Your task to perform on an android device: turn off airplane mode Image 0: 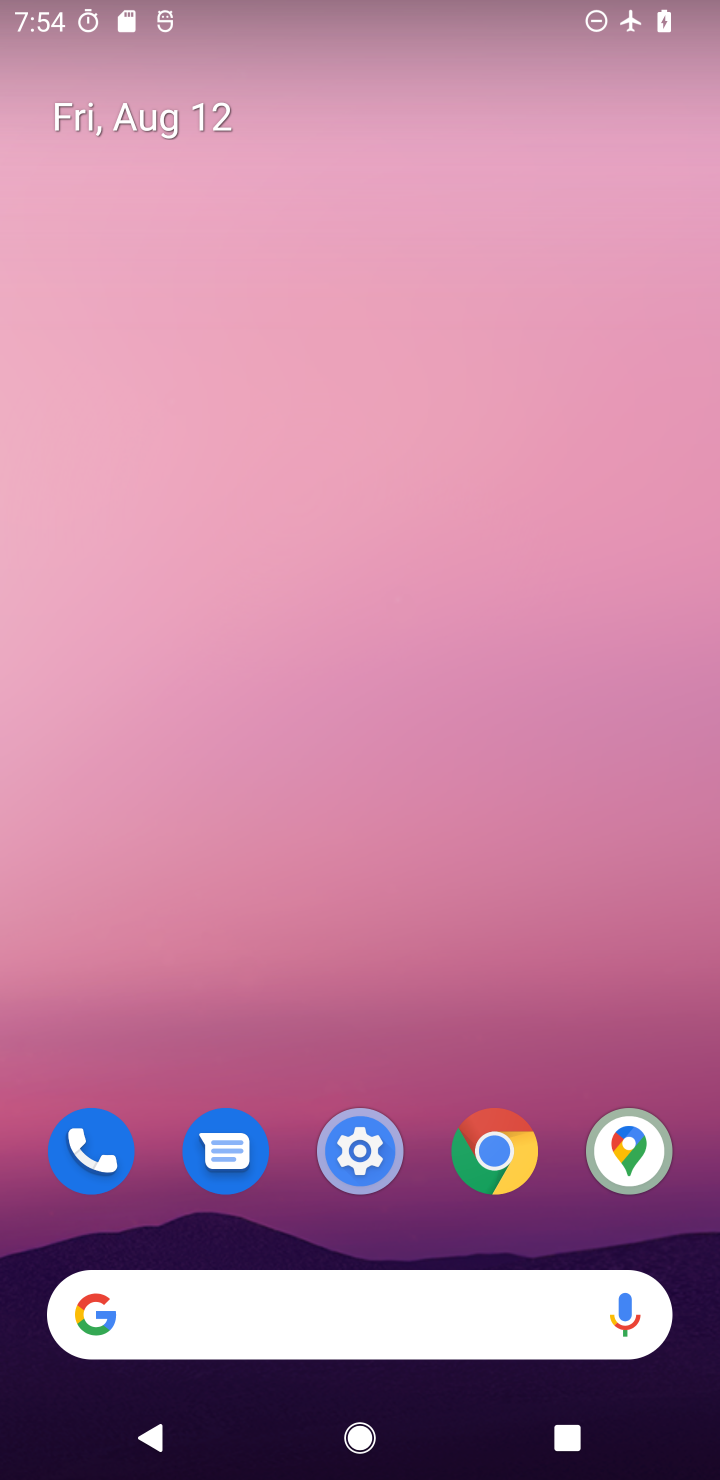
Step 0: drag from (488, 971) to (486, 0)
Your task to perform on an android device: turn off airplane mode Image 1: 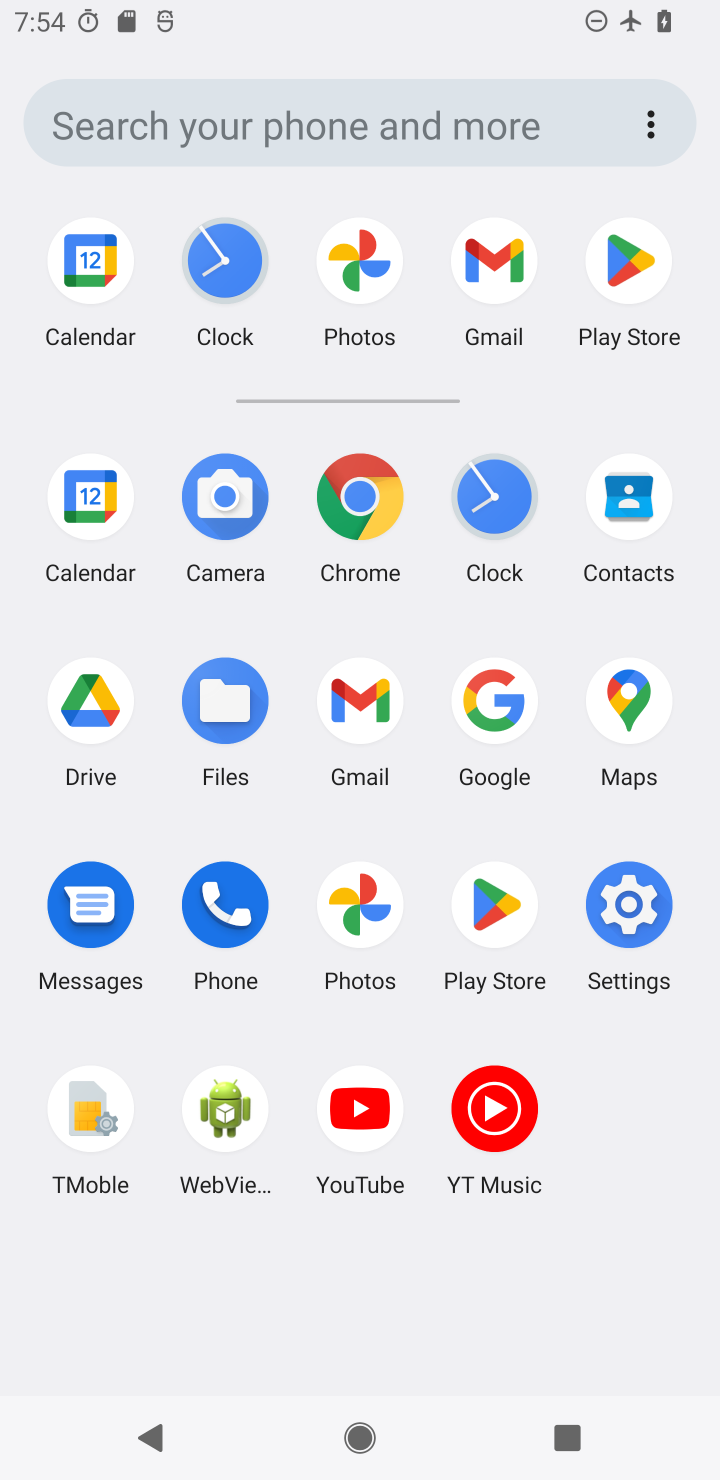
Step 1: click (653, 909)
Your task to perform on an android device: turn off airplane mode Image 2: 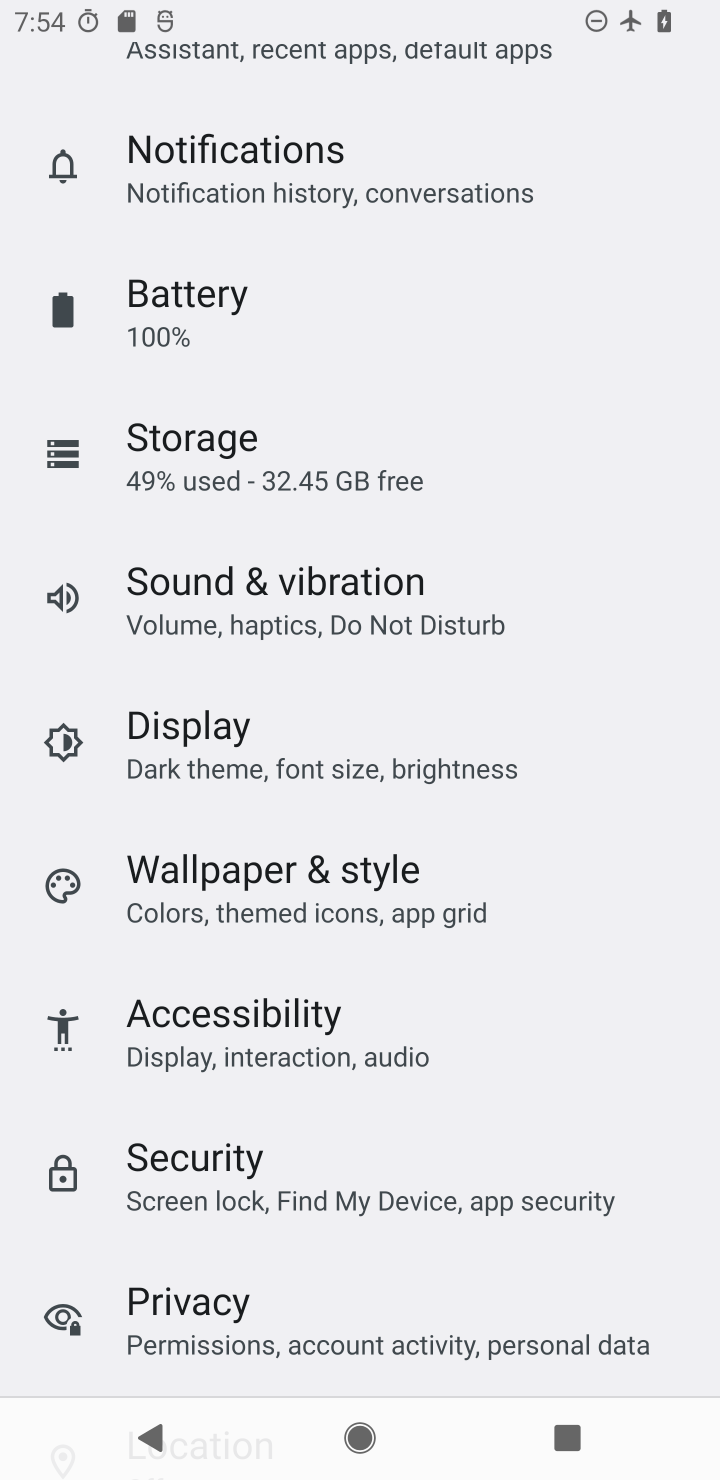
Step 2: drag from (499, 333) to (443, 1158)
Your task to perform on an android device: turn off airplane mode Image 3: 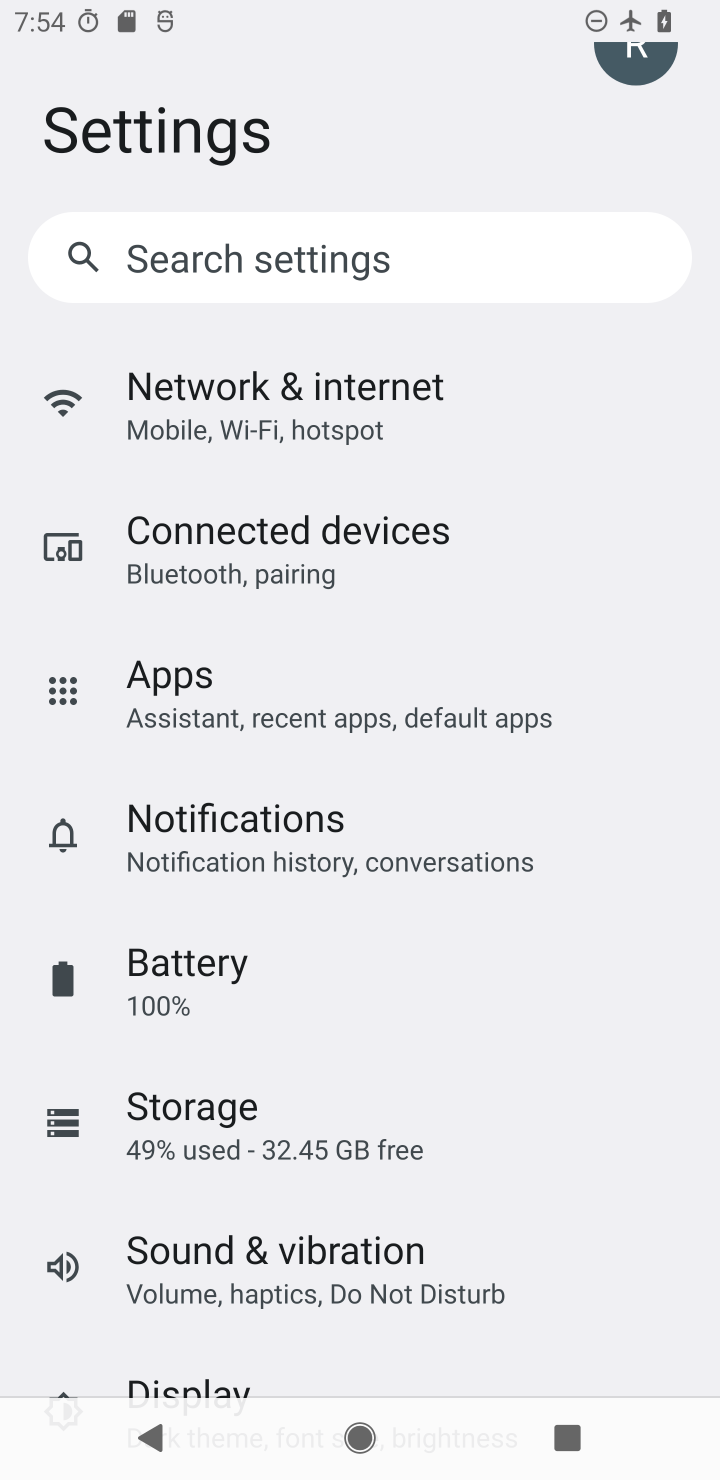
Step 3: click (340, 417)
Your task to perform on an android device: turn off airplane mode Image 4: 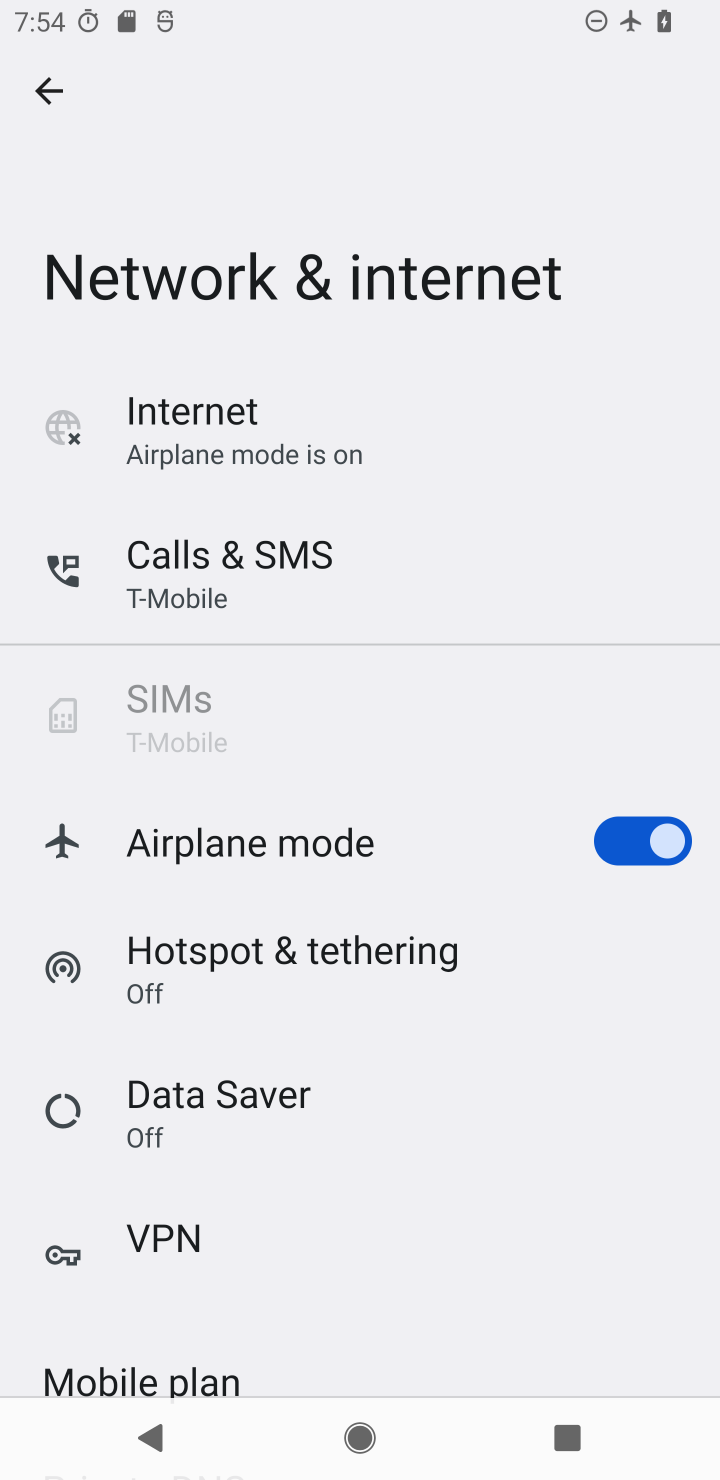
Step 4: click (219, 406)
Your task to perform on an android device: turn off airplane mode Image 5: 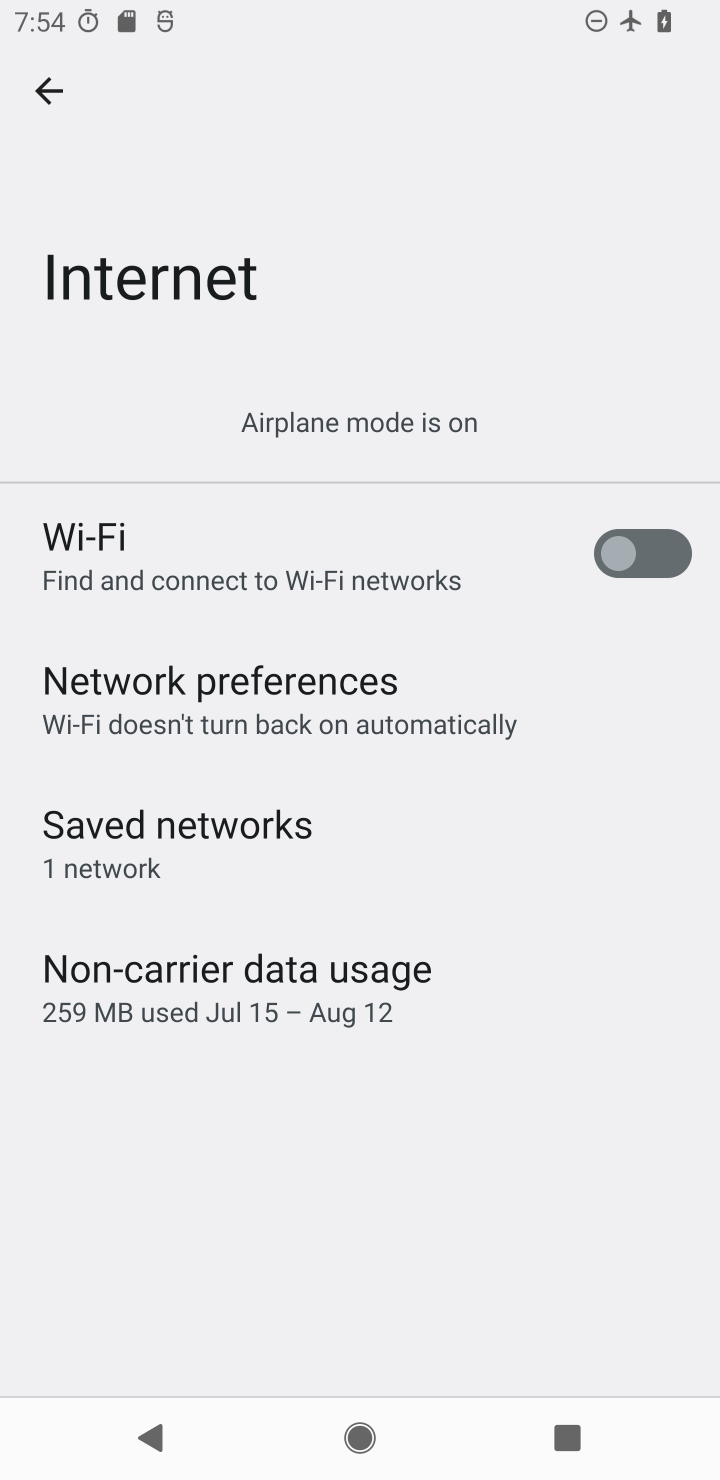
Step 5: press back button
Your task to perform on an android device: turn off airplane mode Image 6: 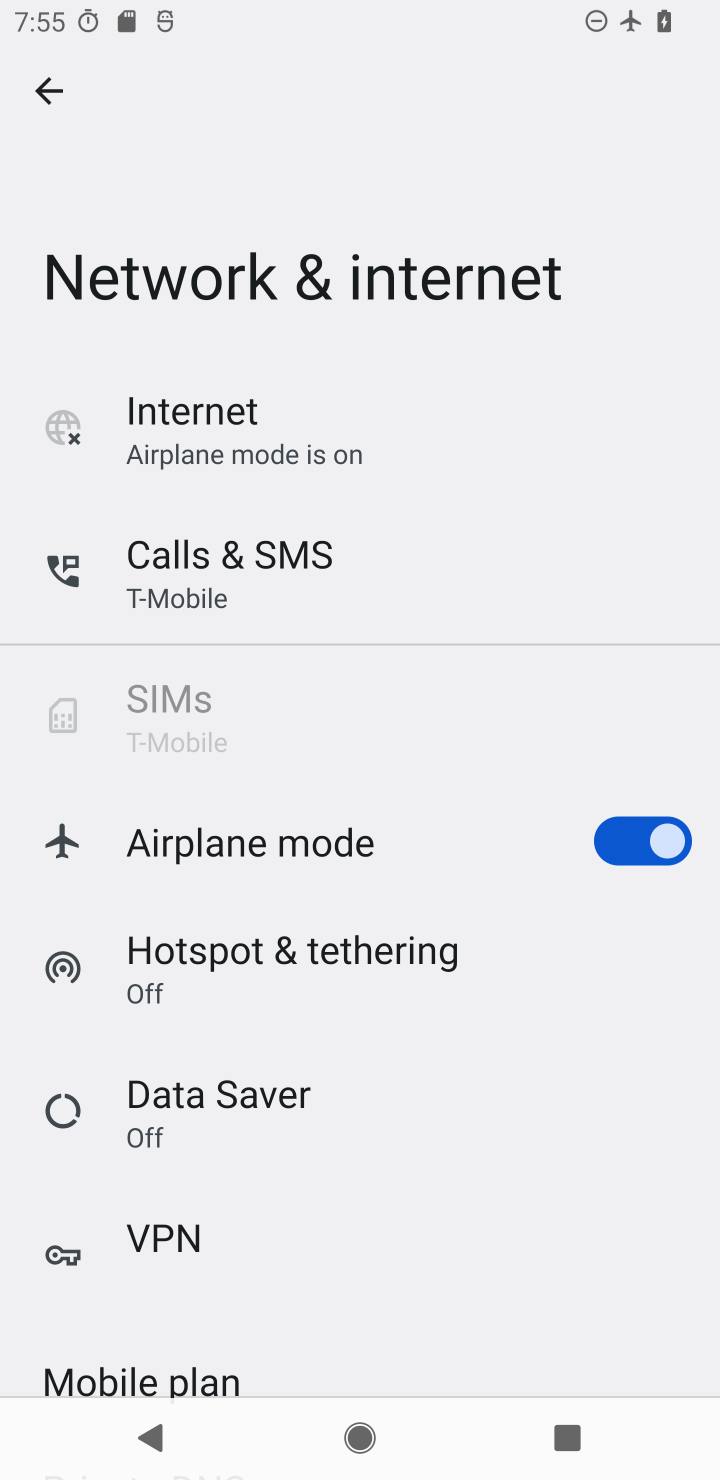
Step 6: click (617, 839)
Your task to perform on an android device: turn off airplane mode Image 7: 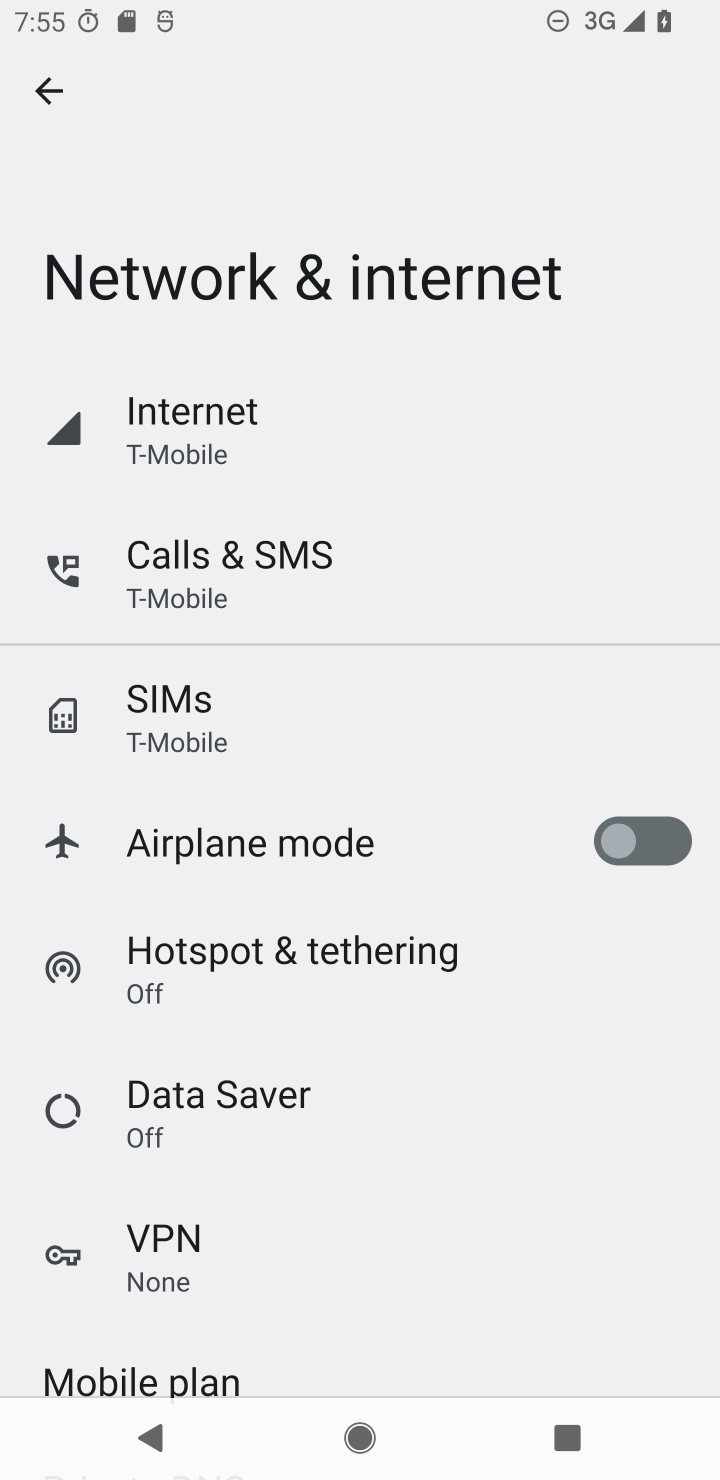
Step 7: task complete